Your task to perform on an android device: Open settings Image 0: 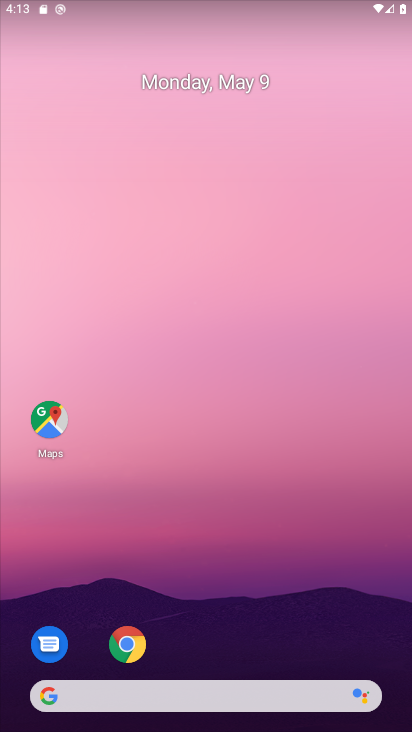
Step 0: drag from (219, 569) to (319, 59)
Your task to perform on an android device: Open settings Image 1: 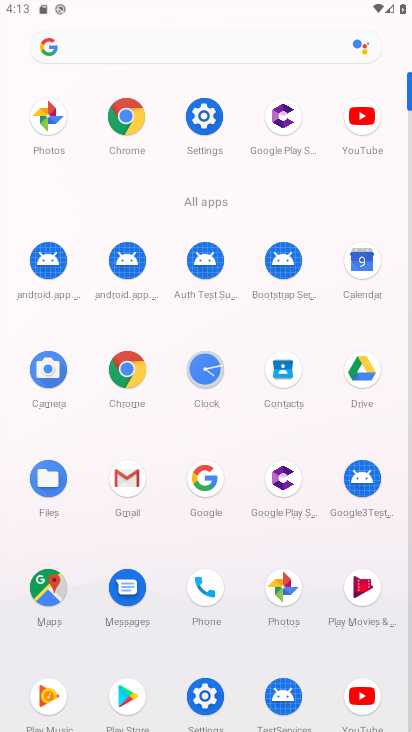
Step 1: click (203, 693)
Your task to perform on an android device: Open settings Image 2: 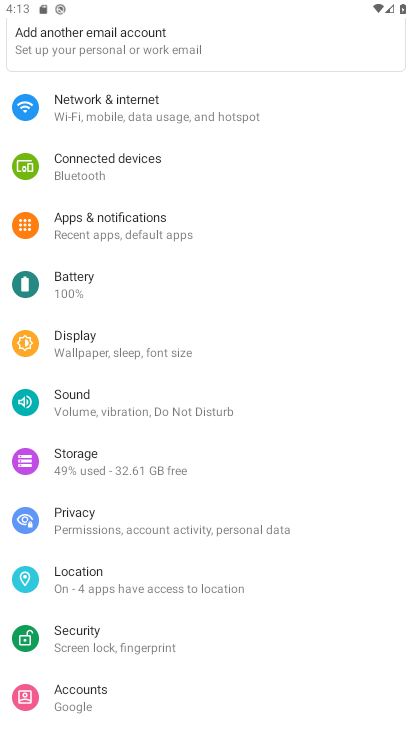
Step 2: task complete